Your task to perform on an android device: Open Youtube and go to the subscriptions tab Image 0: 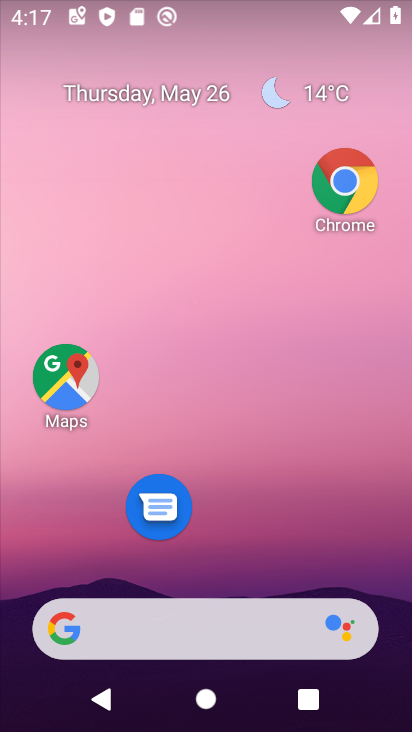
Step 0: drag from (265, 512) to (299, 112)
Your task to perform on an android device: Open Youtube and go to the subscriptions tab Image 1: 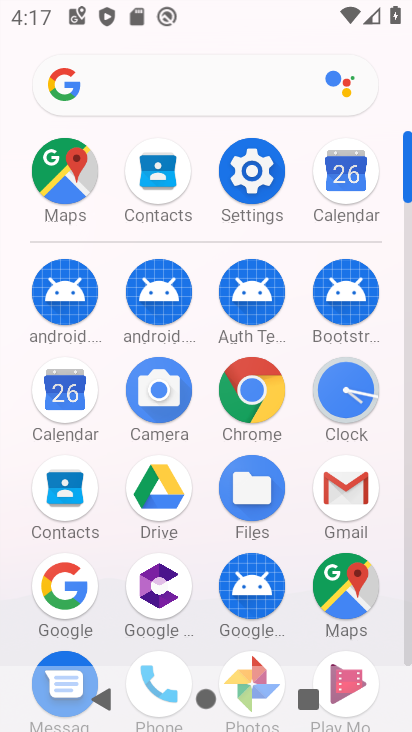
Step 1: drag from (195, 342) to (220, 97)
Your task to perform on an android device: Open Youtube and go to the subscriptions tab Image 2: 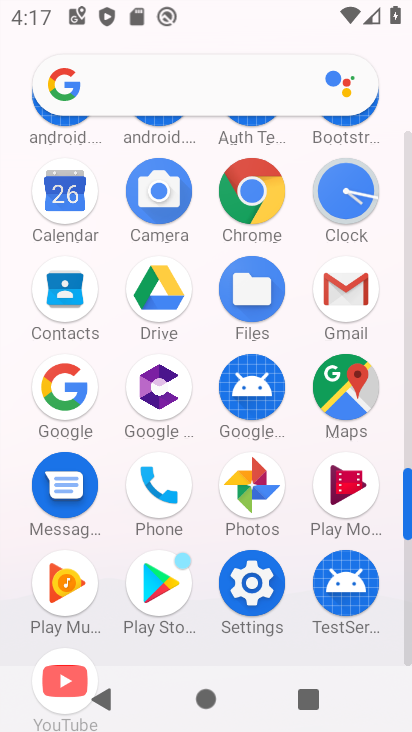
Step 2: click (64, 671)
Your task to perform on an android device: Open Youtube and go to the subscriptions tab Image 3: 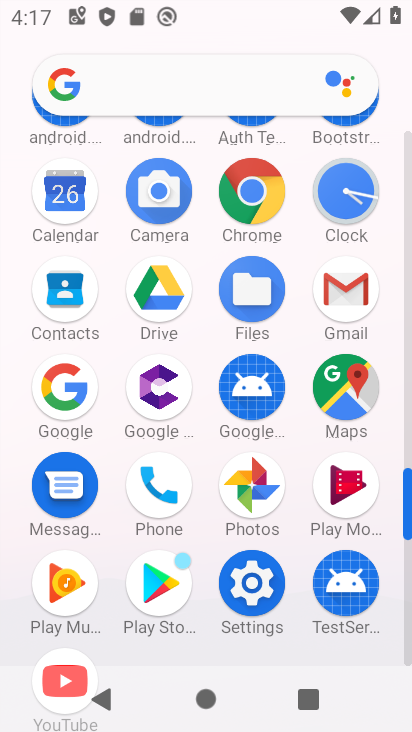
Step 3: click (76, 668)
Your task to perform on an android device: Open Youtube and go to the subscriptions tab Image 4: 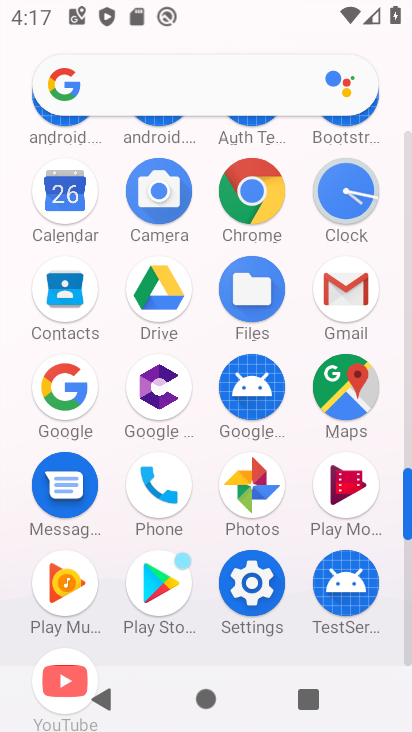
Step 4: drag from (205, 646) to (306, 139)
Your task to perform on an android device: Open Youtube and go to the subscriptions tab Image 5: 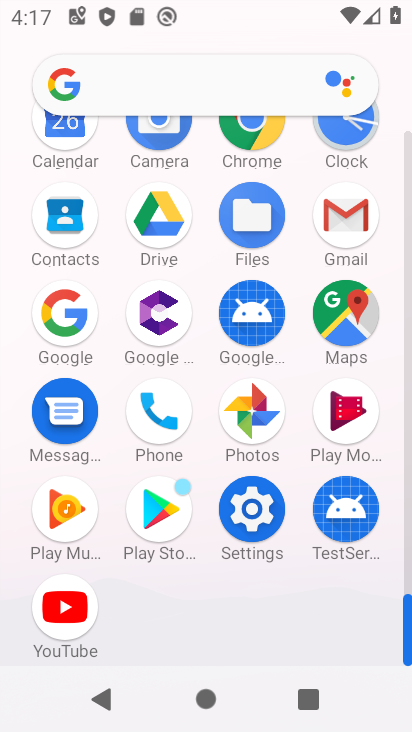
Step 5: click (65, 555)
Your task to perform on an android device: Open Youtube and go to the subscriptions tab Image 6: 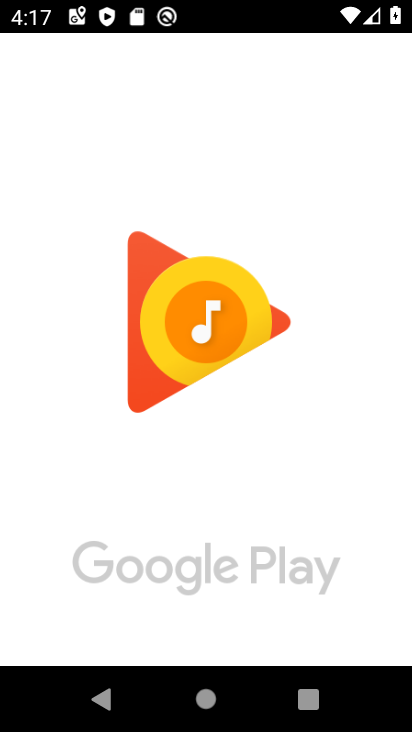
Step 6: press home button
Your task to perform on an android device: Open Youtube and go to the subscriptions tab Image 7: 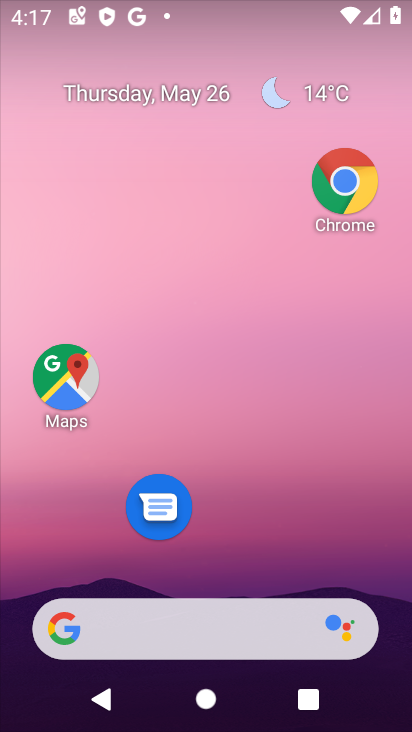
Step 7: drag from (369, 568) to (386, 360)
Your task to perform on an android device: Open Youtube and go to the subscriptions tab Image 8: 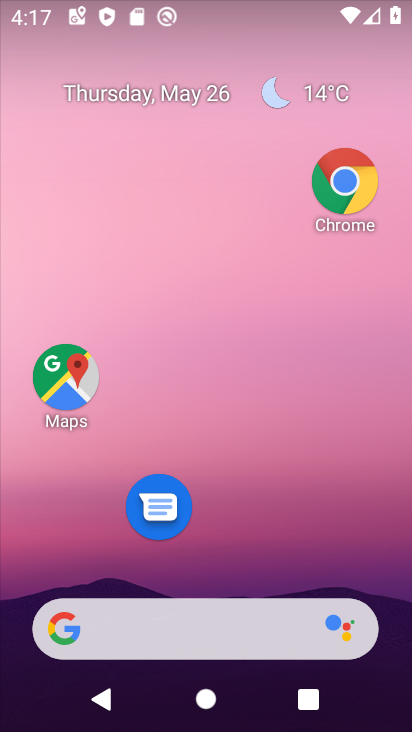
Step 8: drag from (217, 444) to (217, 74)
Your task to perform on an android device: Open Youtube and go to the subscriptions tab Image 9: 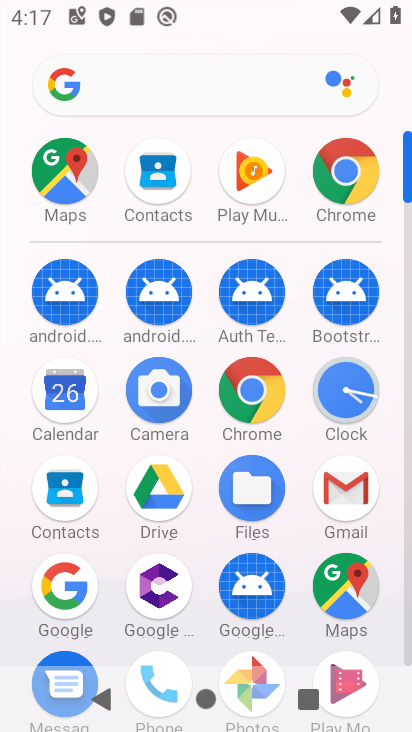
Step 9: drag from (200, 446) to (208, 147)
Your task to perform on an android device: Open Youtube and go to the subscriptions tab Image 10: 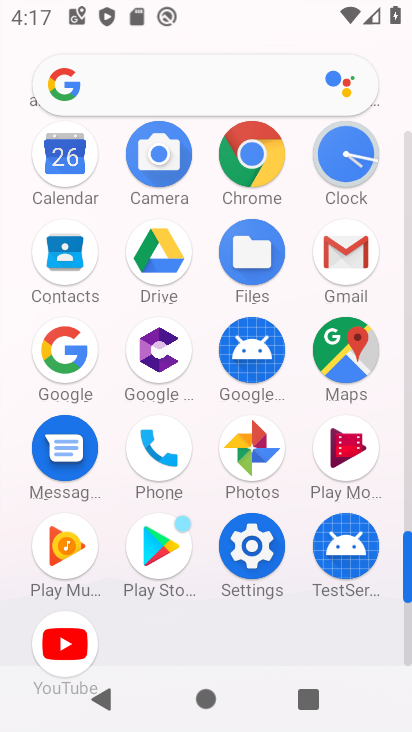
Step 10: click (64, 647)
Your task to perform on an android device: Open Youtube and go to the subscriptions tab Image 11: 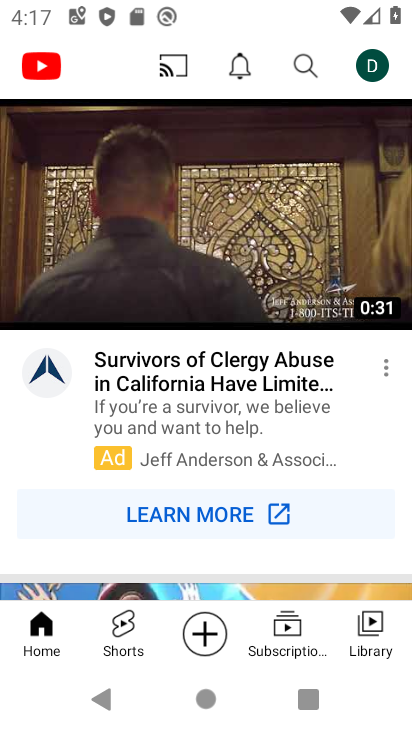
Step 11: click (287, 621)
Your task to perform on an android device: Open Youtube and go to the subscriptions tab Image 12: 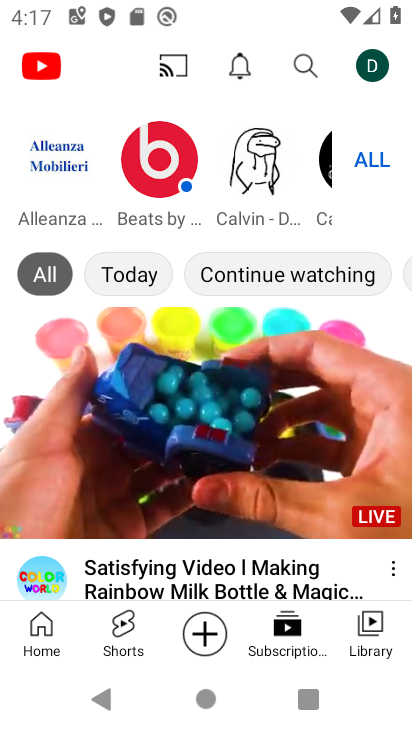
Step 12: task complete